Your task to perform on an android device: turn notification dots on Image 0: 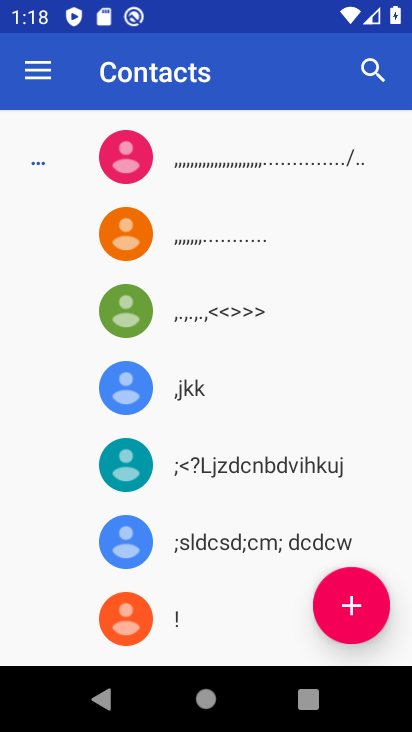
Step 0: press home button
Your task to perform on an android device: turn notification dots on Image 1: 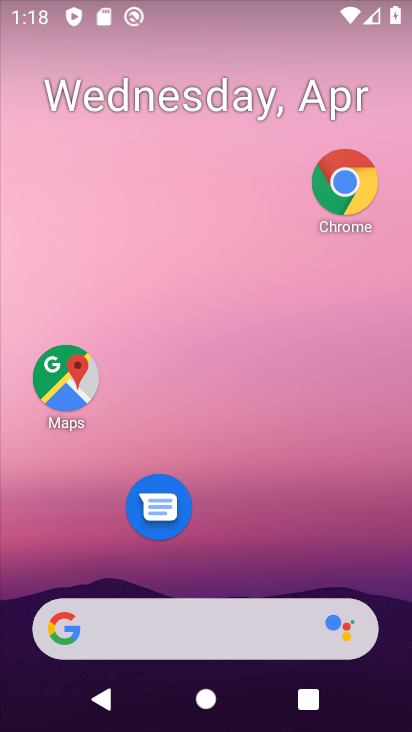
Step 1: drag from (246, 708) to (241, 0)
Your task to perform on an android device: turn notification dots on Image 2: 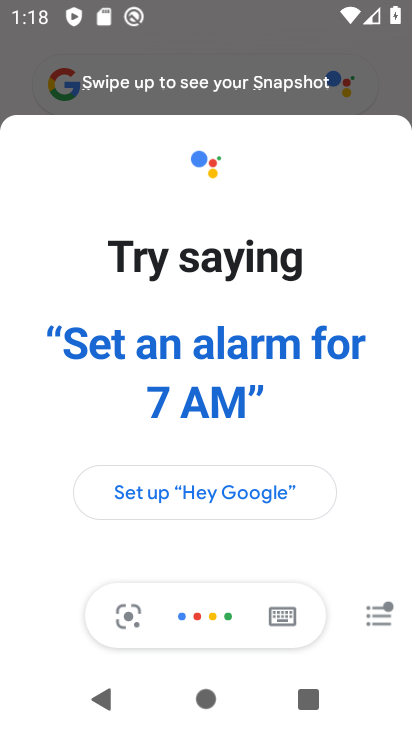
Step 2: press home button
Your task to perform on an android device: turn notification dots on Image 3: 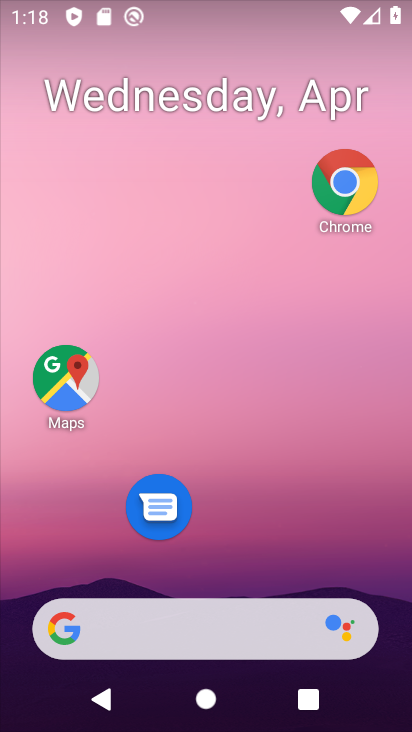
Step 3: drag from (261, 713) to (293, 5)
Your task to perform on an android device: turn notification dots on Image 4: 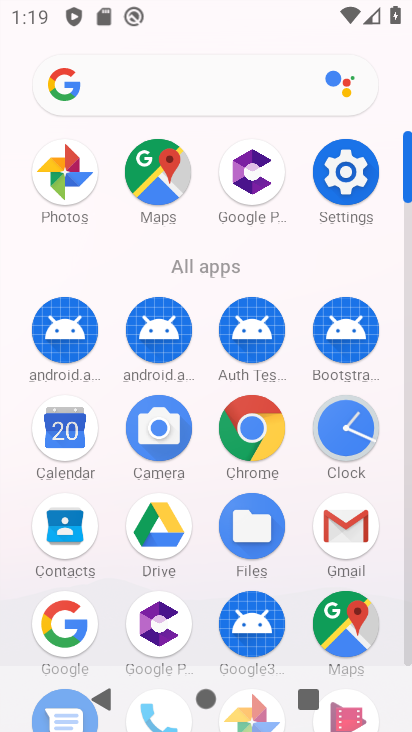
Step 4: click (348, 166)
Your task to perform on an android device: turn notification dots on Image 5: 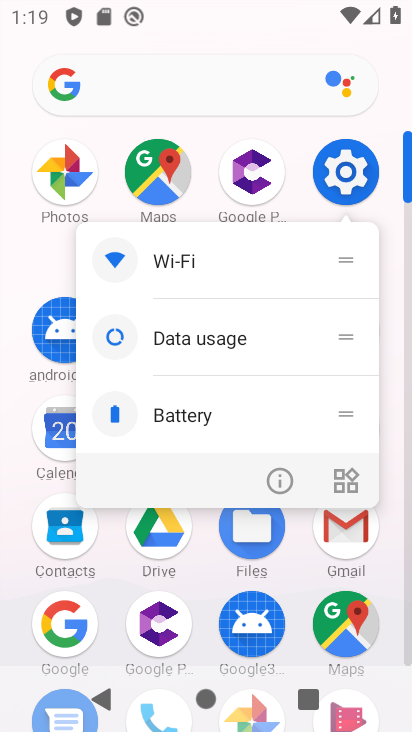
Step 5: click (348, 166)
Your task to perform on an android device: turn notification dots on Image 6: 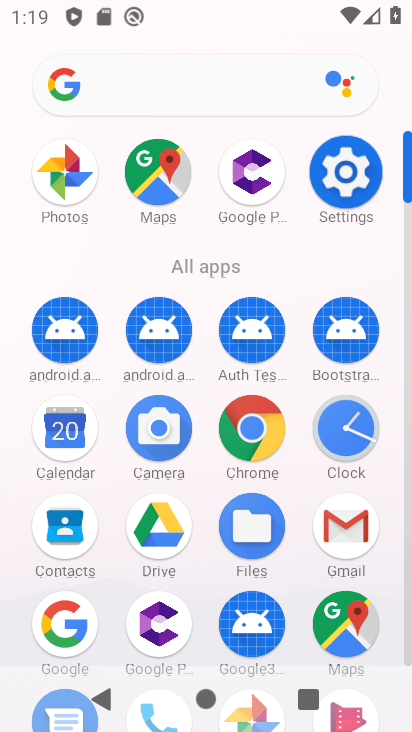
Step 6: click (348, 166)
Your task to perform on an android device: turn notification dots on Image 7: 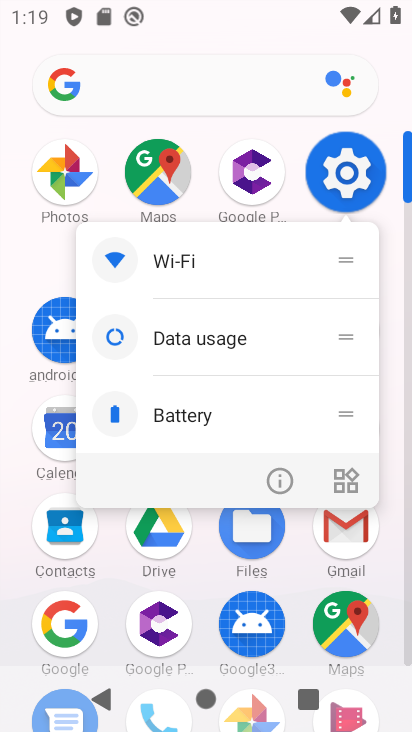
Step 7: click (348, 166)
Your task to perform on an android device: turn notification dots on Image 8: 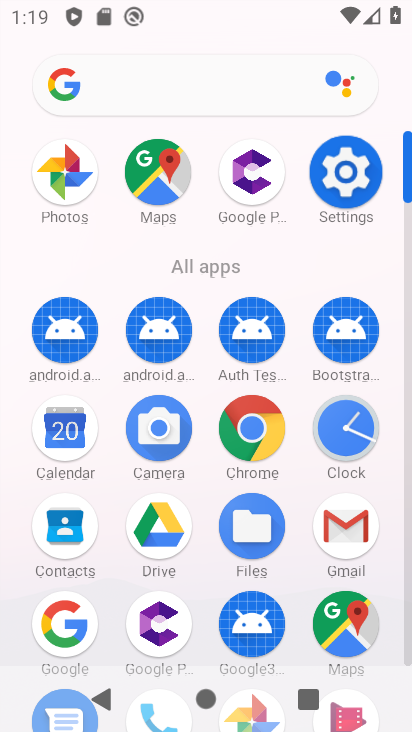
Step 8: click (348, 166)
Your task to perform on an android device: turn notification dots on Image 9: 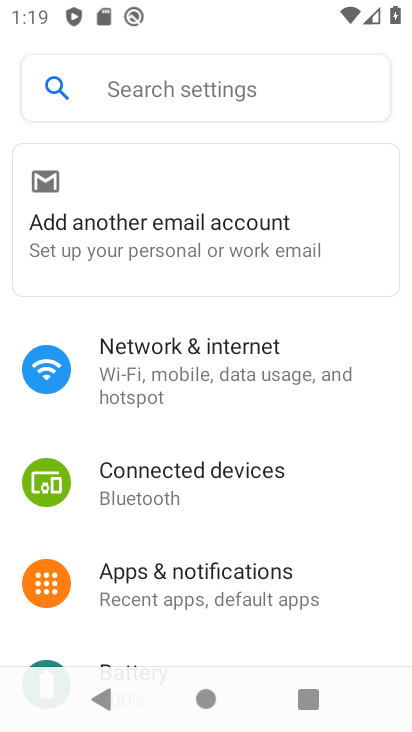
Step 9: click (270, 581)
Your task to perform on an android device: turn notification dots on Image 10: 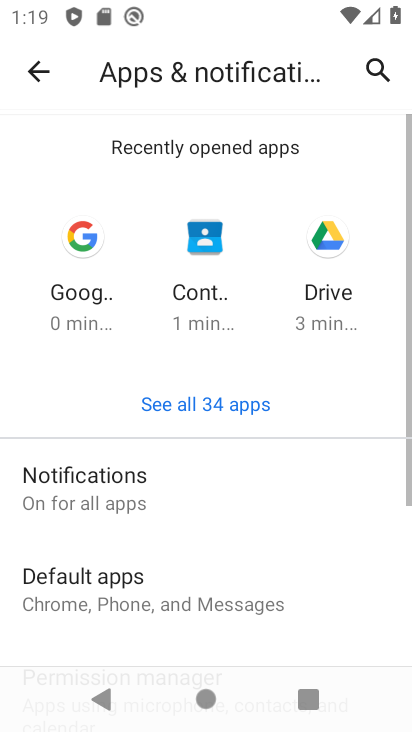
Step 10: click (275, 483)
Your task to perform on an android device: turn notification dots on Image 11: 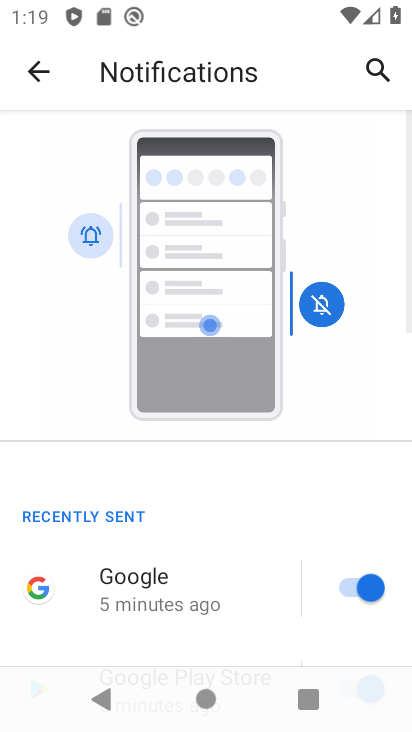
Step 11: drag from (249, 602) to (275, 62)
Your task to perform on an android device: turn notification dots on Image 12: 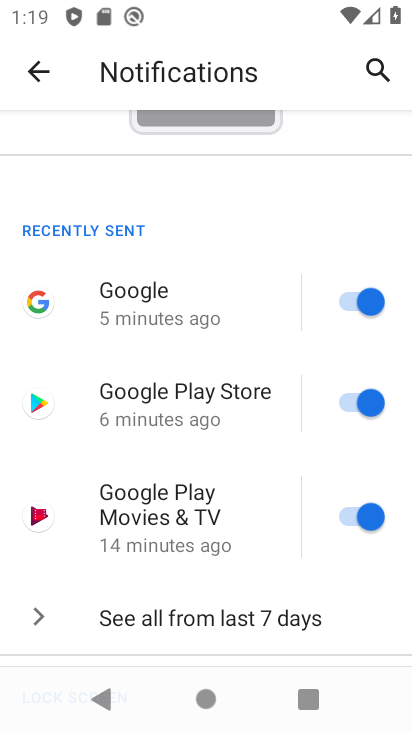
Step 12: drag from (296, 595) to (344, 9)
Your task to perform on an android device: turn notification dots on Image 13: 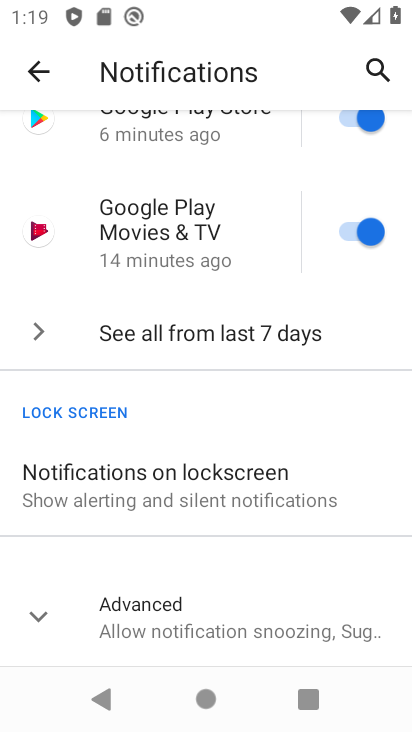
Step 13: click (292, 623)
Your task to perform on an android device: turn notification dots on Image 14: 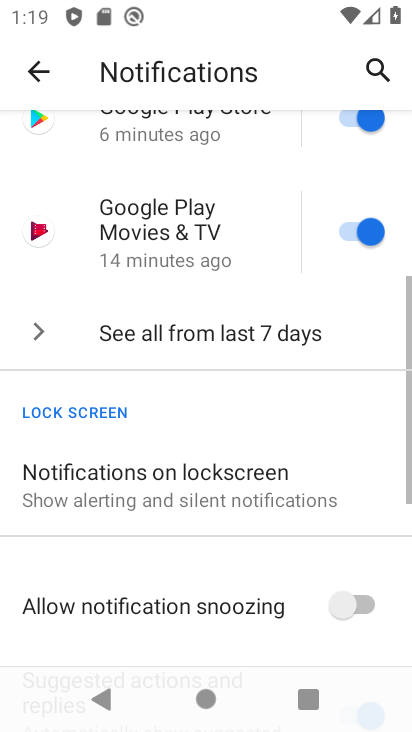
Step 14: task complete